Your task to perform on an android device: uninstall "LinkedIn" Image 0: 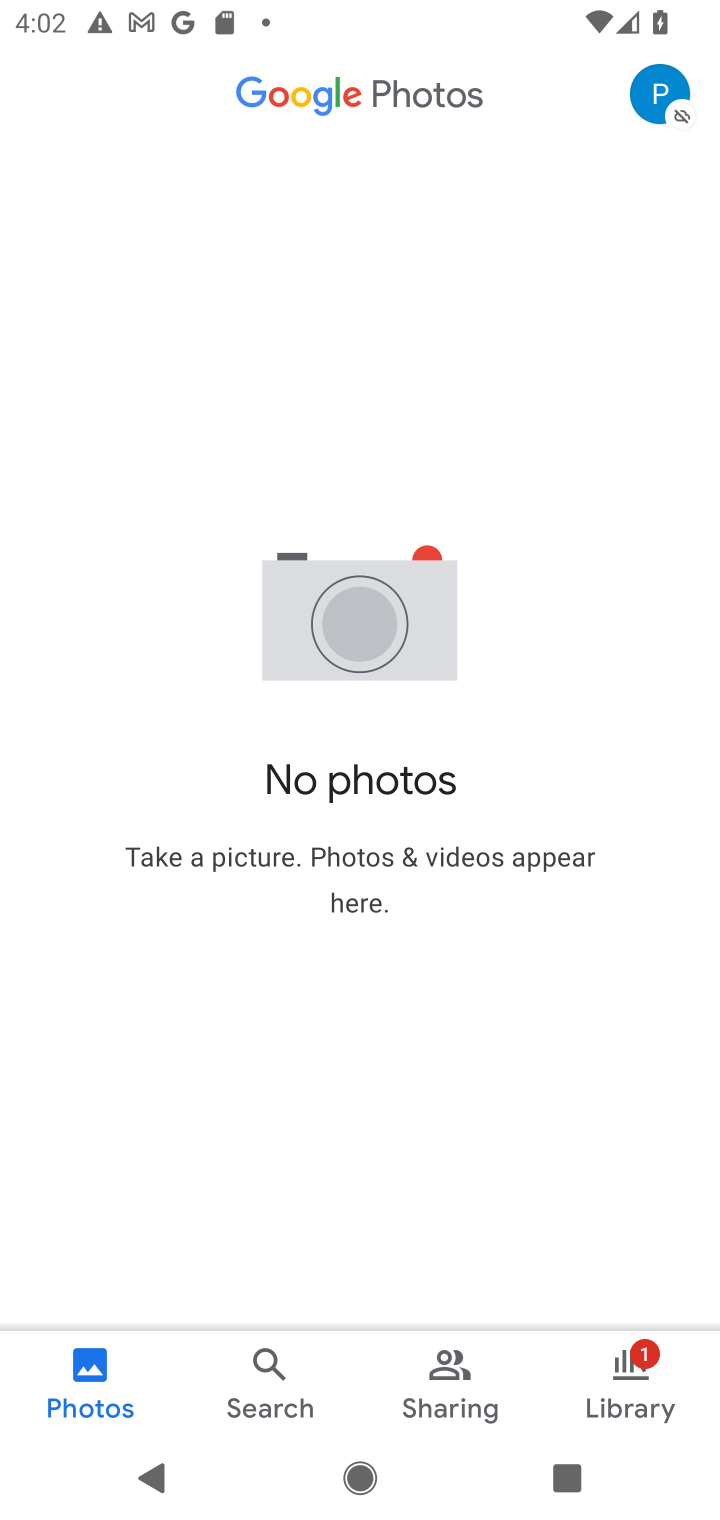
Step 0: press home button
Your task to perform on an android device: uninstall "LinkedIn" Image 1: 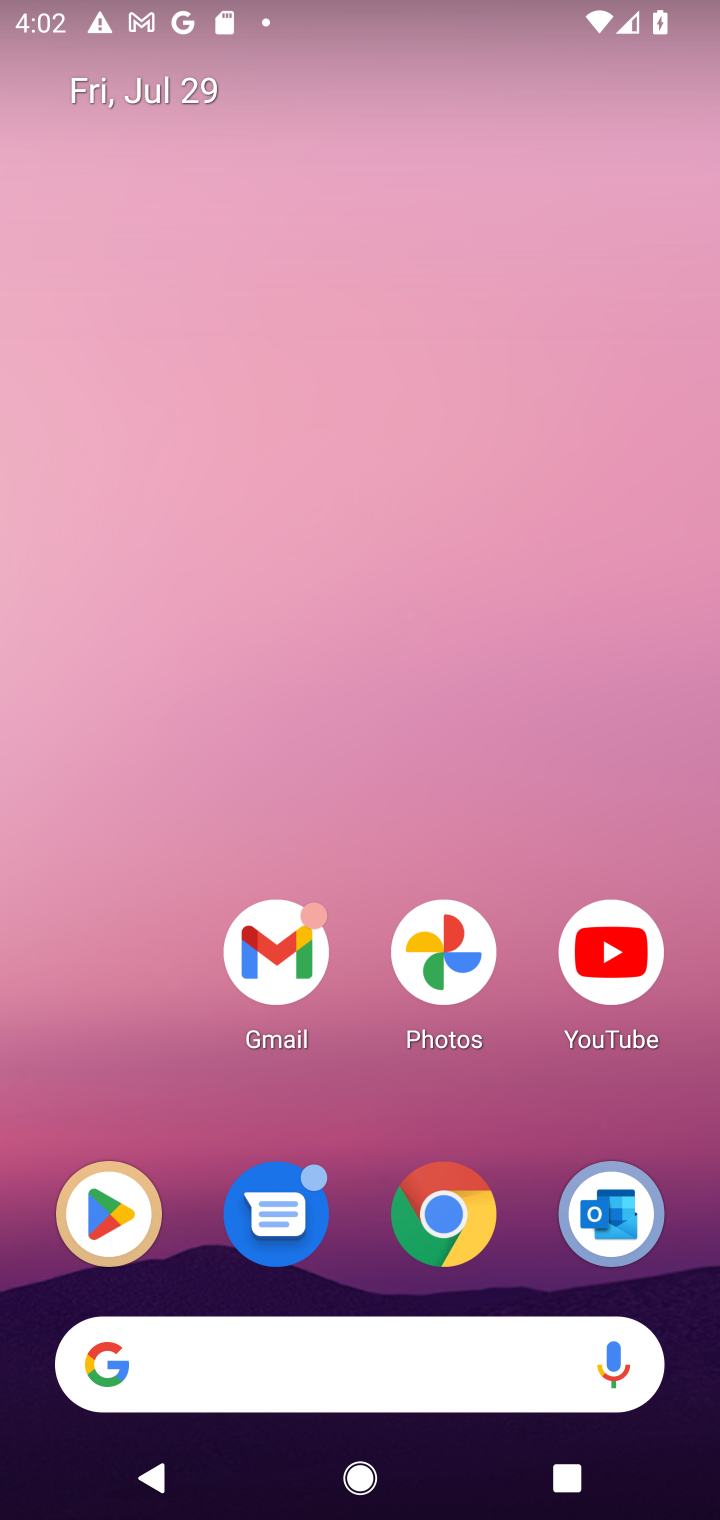
Step 1: click (118, 1212)
Your task to perform on an android device: uninstall "LinkedIn" Image 2: 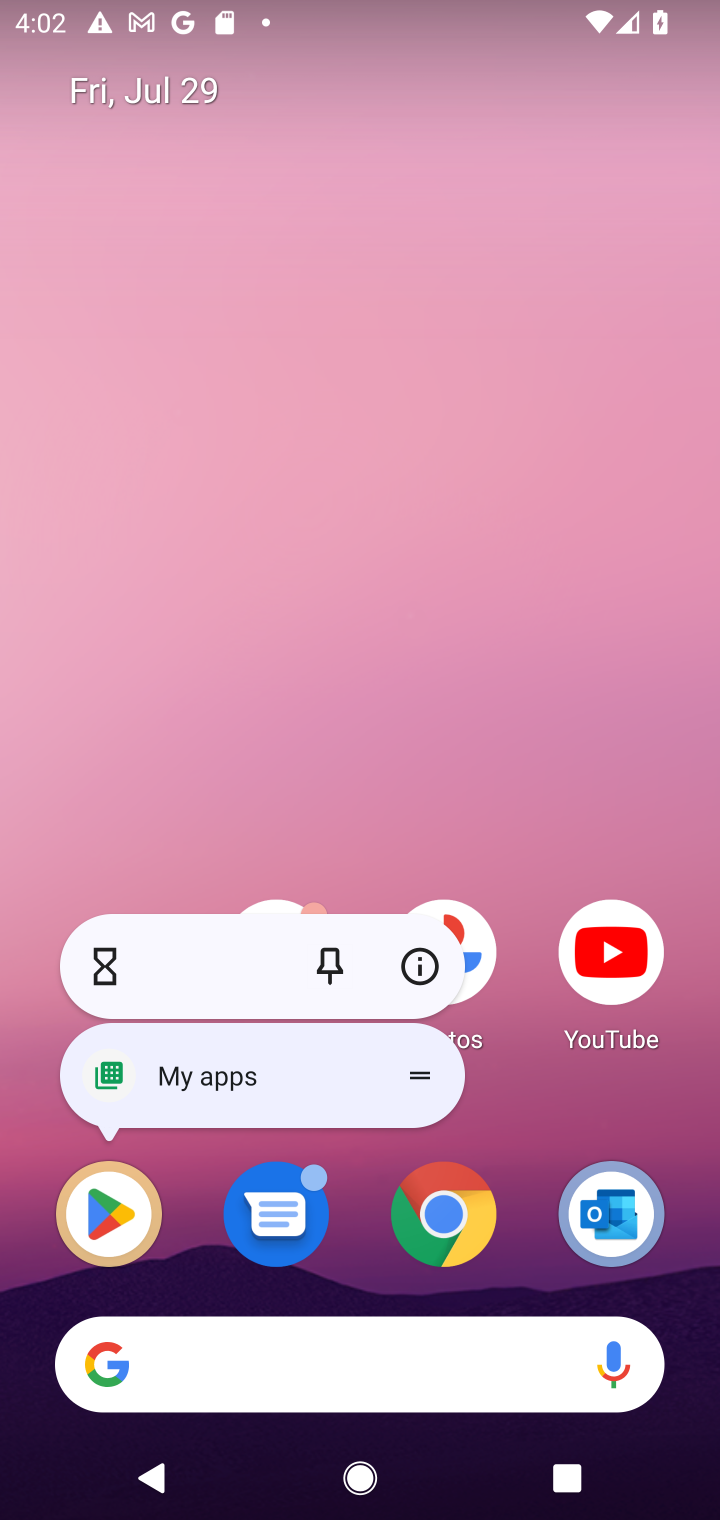
Step 2: click (106, 1218)
Your task to perform on an android device: uninstall "LinkedIn" Image 3: 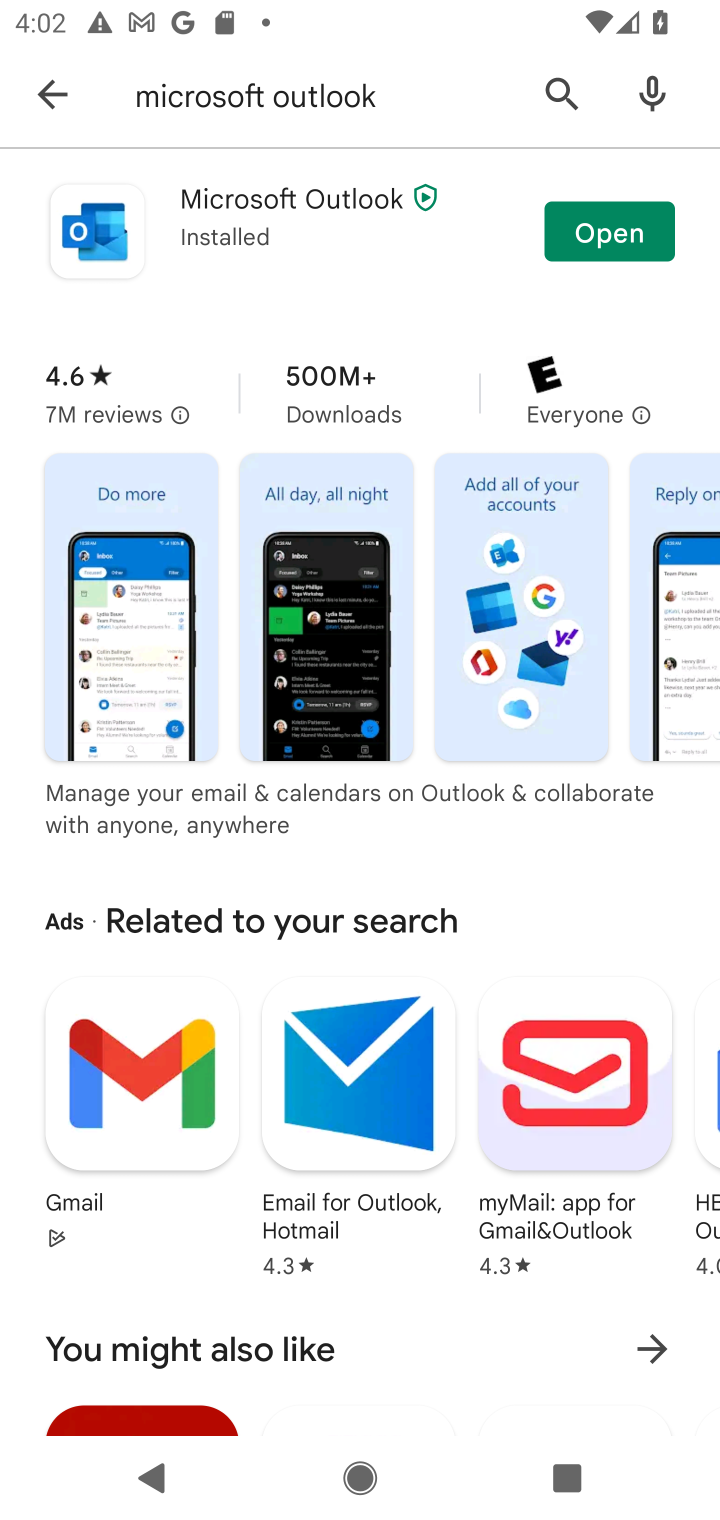
Step 3: click (336, 111)
Your task to perform on an android device: uninstall "LinkedIn" Image 4: 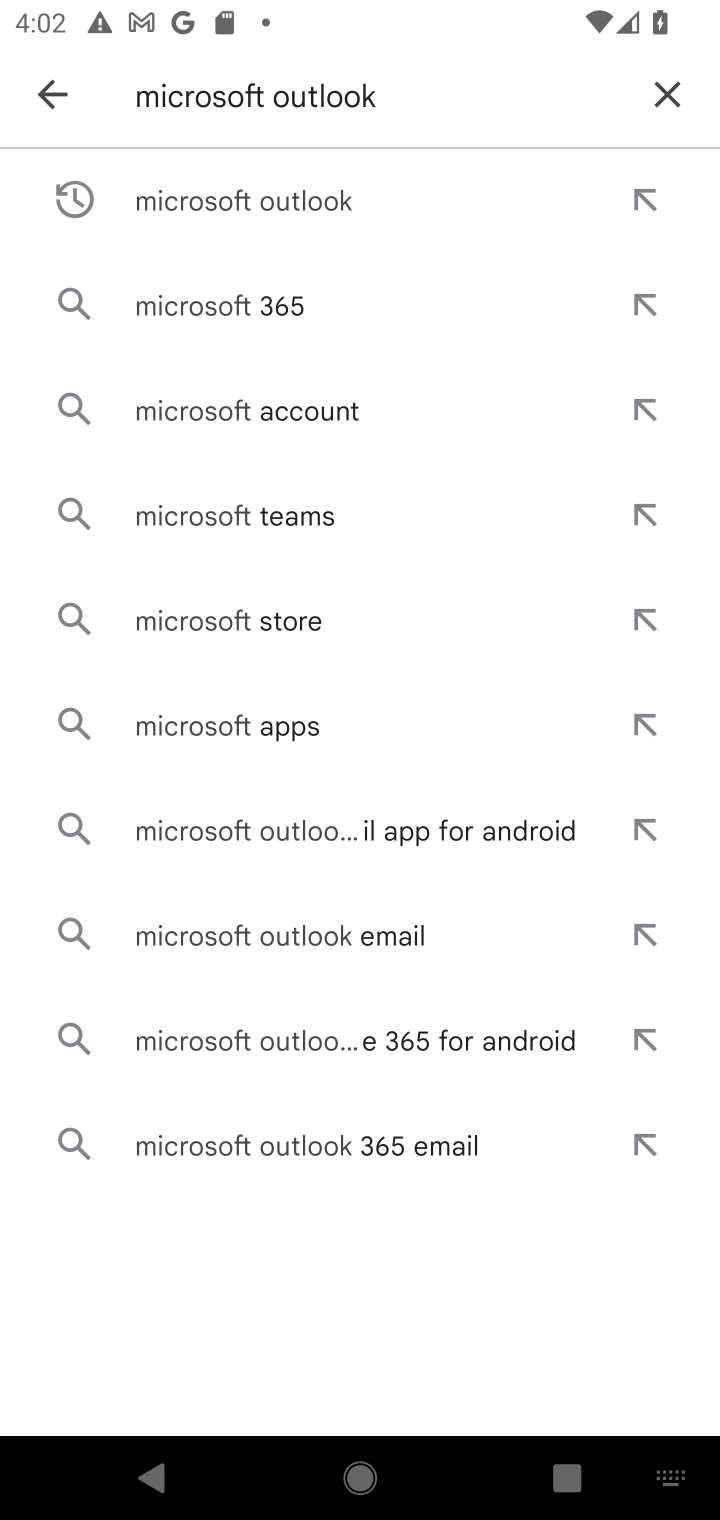
Step 4: click (647, 90)
Your task to perform on an android device: uninstall "LinkedIn" Image 5: 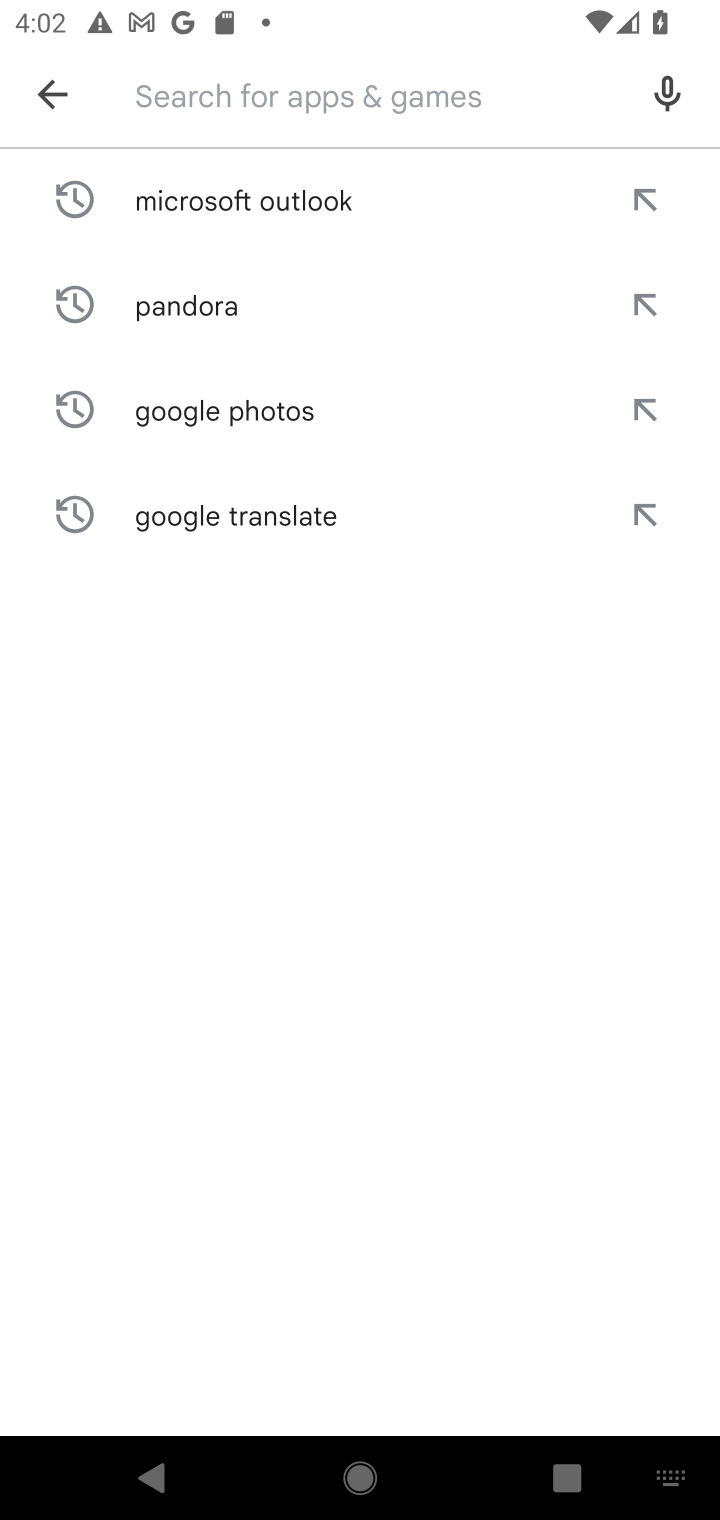
Step 5: type "linkedin"
Your task to perform on an android device: uninstall "LinkedIn" Image 6: 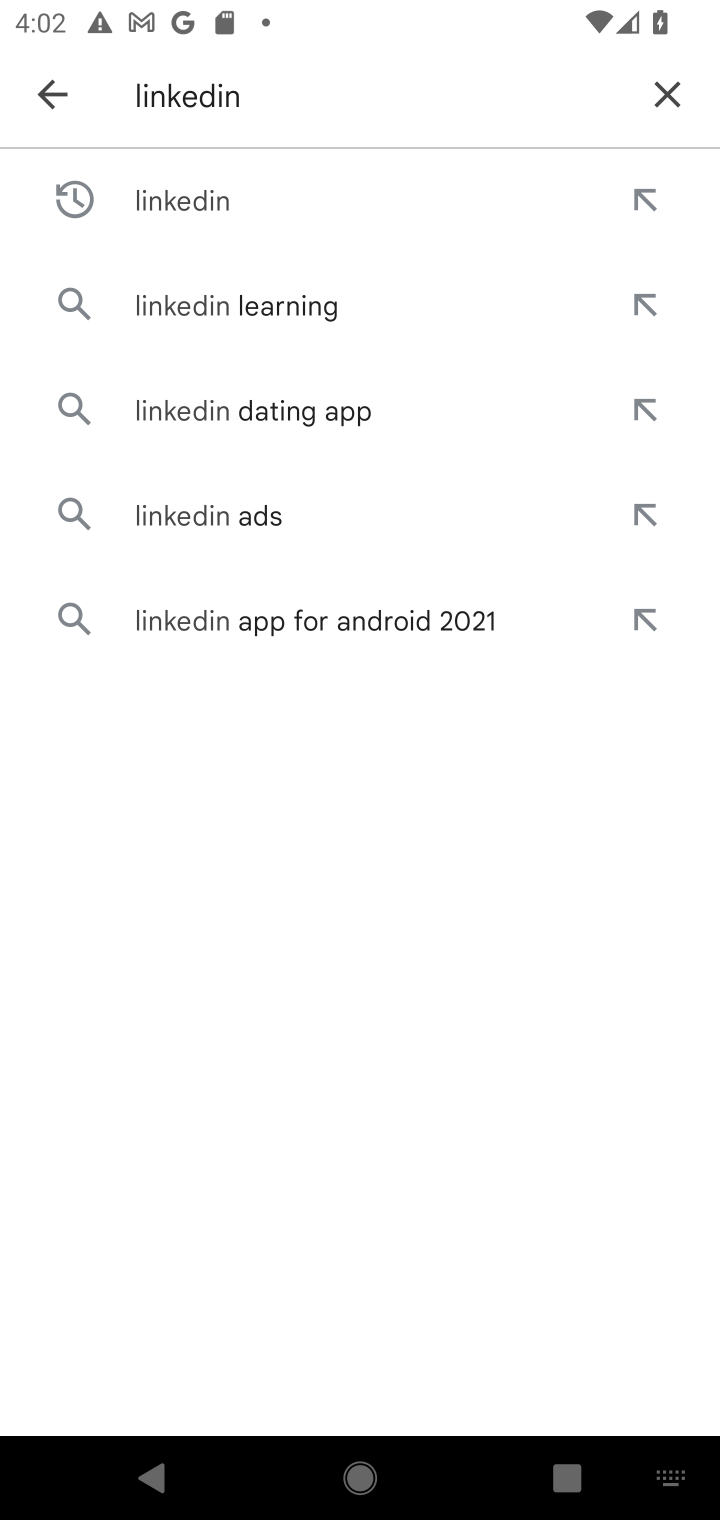
Step 6: click (235, 214)
Your task to perform on an android device: uninstall "LinkedIn" Image 7: 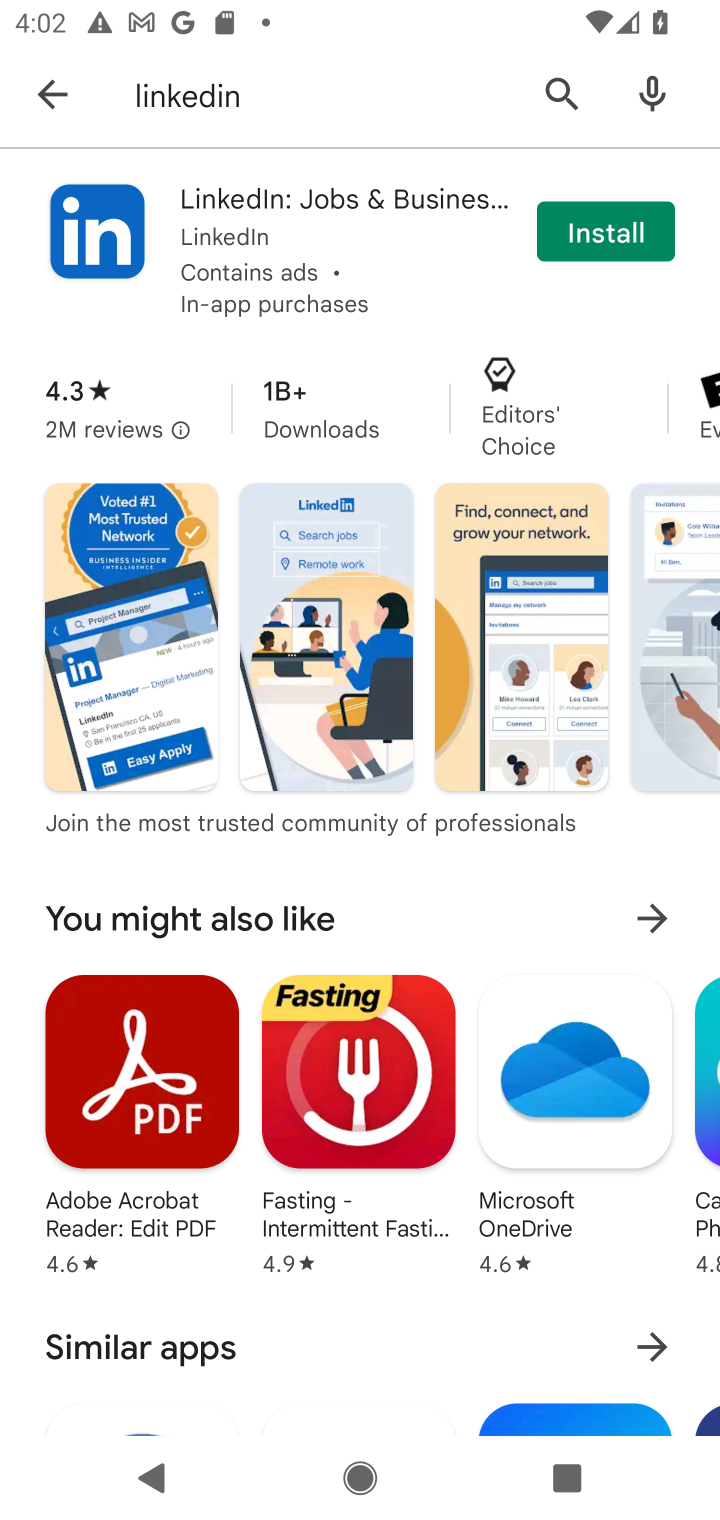
Step 7: task complete